Your task to perform on an android device: turn off notifications settings in the gmail app Image 0: 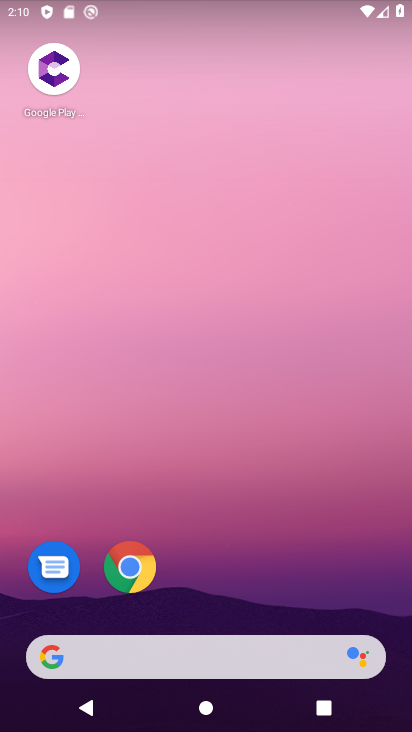
Step 0: drag from (241, 552) to (245, 121)
Your task to perform on an android device: turn off notifications settings in the gmail app Image 1: 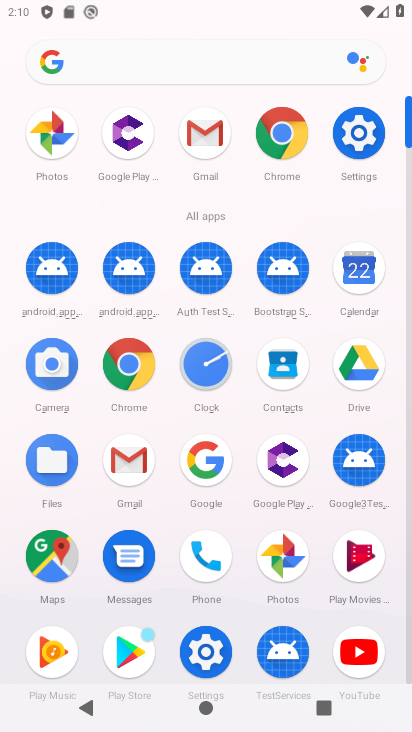
Step 1: click (201, 128)
Your task to perform on an android device: turn off notifications settings in the gmail app Image 2: 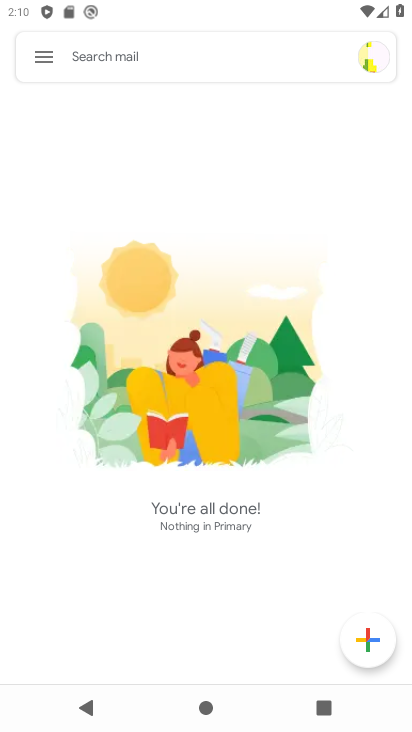
Step 2: click (43, 63)
Your task to perform on an android device: turn off notifications settings in the gmail app Image 3: 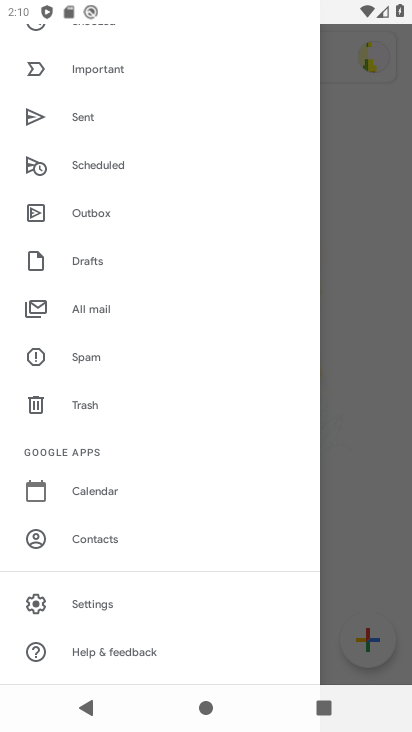
Step 3: click (92, 596)
Your task to perform on an android device: turn off notifications settings in the gmail app Image 4: 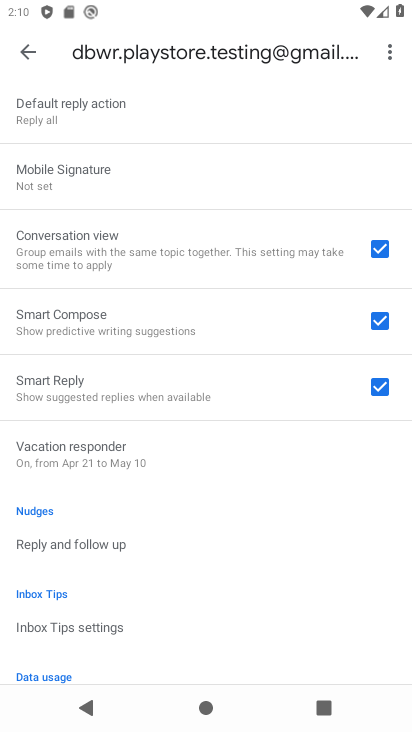
Step 4: drag from (176, 553) to (186, 177)
Your task to perform on an android device: turn off notifications settings in the gmail app Image 5: 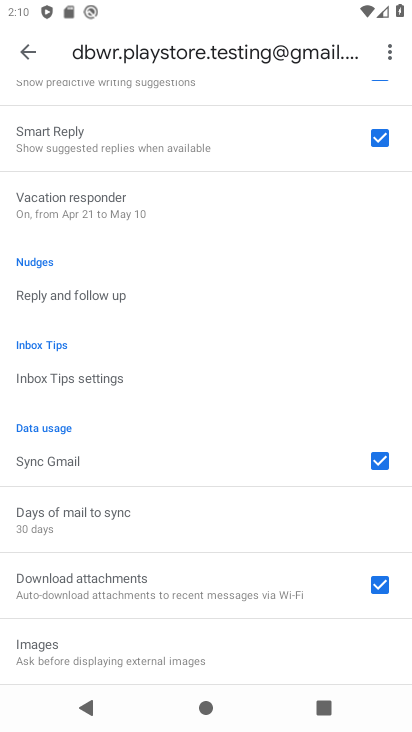
Step 5: drag from (171, 420) to (162, 149)
Your task to perform on an android device: turn off notifications settings in the gmail app Image 6: 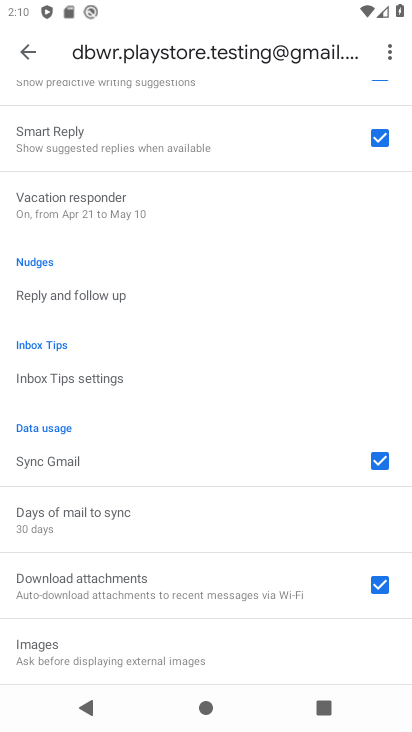
Step 6: drag from (162, 149) to (163, 510)
Your task to perform on an android device: turn off notifications settings in the gmail app Image 7: 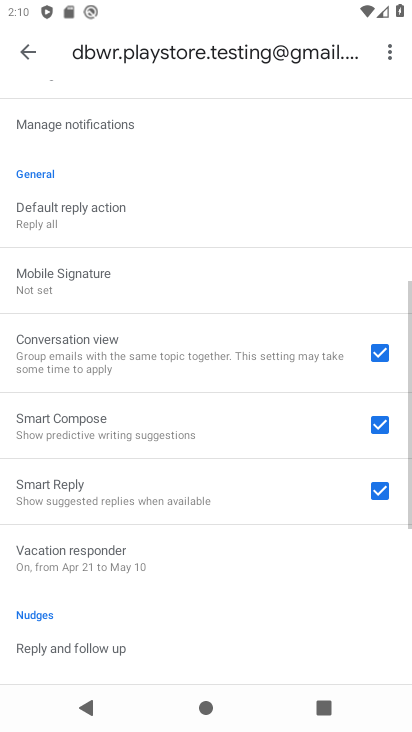
Step 7: drag from (191, 212) to (178, 459)
Your task to perform on an android device: turn off notifications settings in the gmail app Image 8: 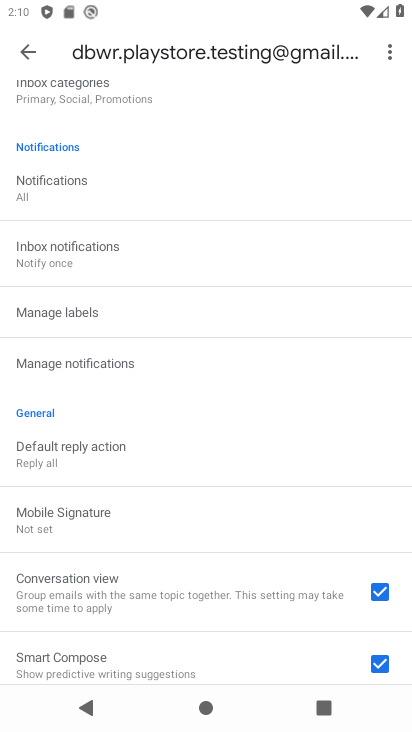
Step 8: click (125, 371)
Your task to perform on an android device: turn off notifications settings in the gmail app Image 9: 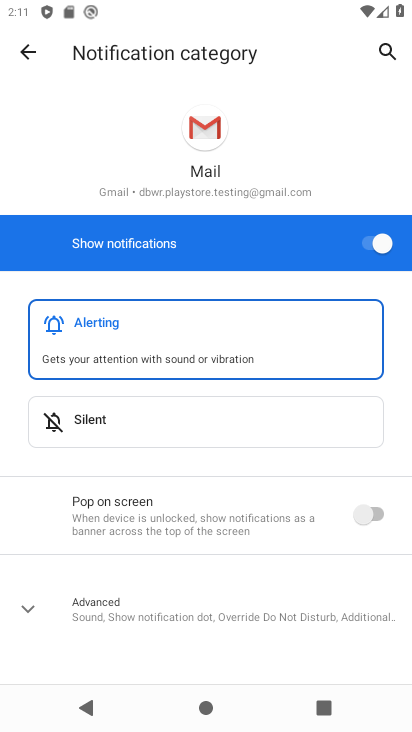
Step 9: click (377, 248)
Your task to perform on an android device: turn off notifications settings in the gmail app Image 10: 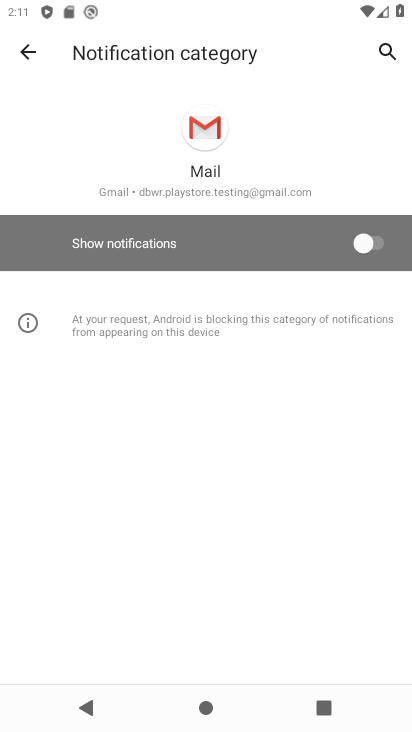
Step 10: task complete